Your task to perform on an android device: open device folders in google photos Image 0: 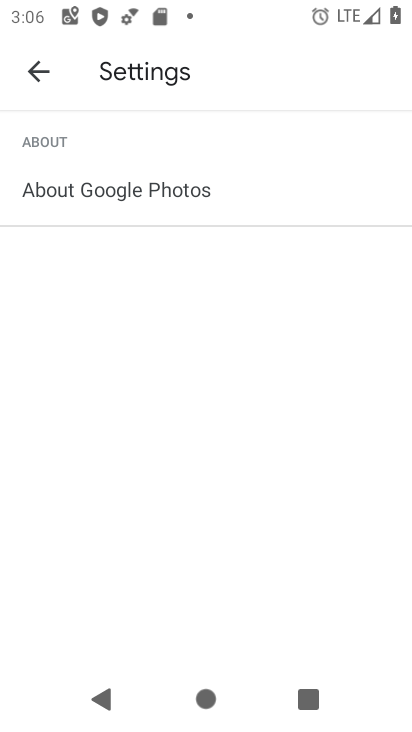
Step 0: press back button
Your task to perform on an android device: open device folders in google photos Image 1: 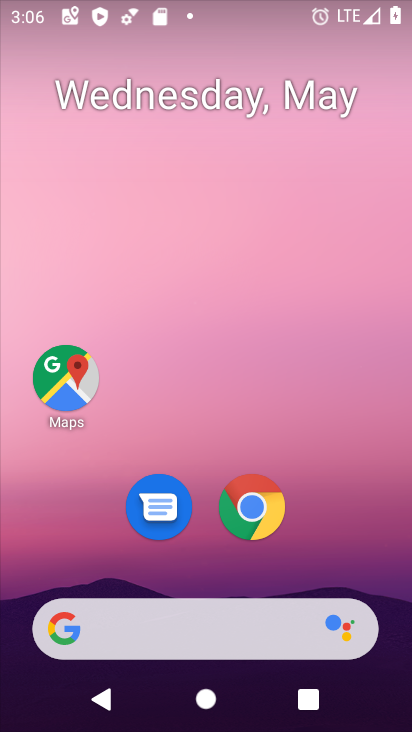
Step 1: drag from (348, 556) to (273, 157)
Your task to perform on an android device: open device folders in google photos Image 2: 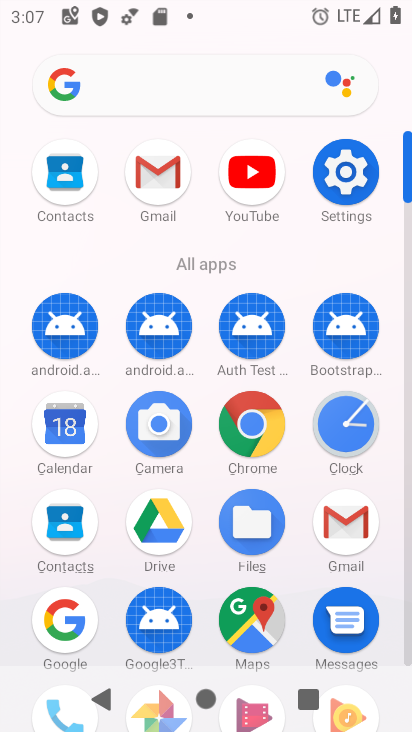
Step 2: drag from (215, 592) to (212, 272)
Your task to perform on an android device: open device folders in google photos Image 3: 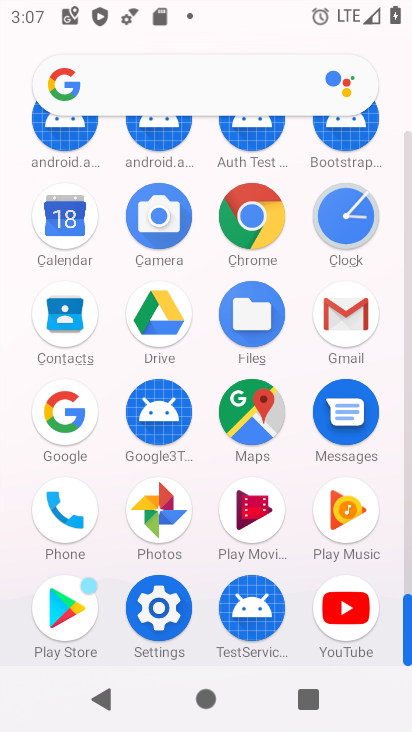
Step 3: click (158, 509)
Your task to perform on an android device: open device folders in google photos Image 4: 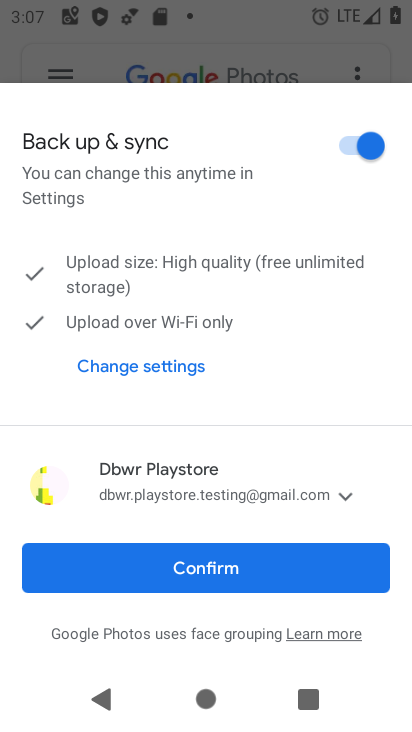
Step 4: click (206, 569)
Your task to perform on an android device: open device folders in google photos Image 5: 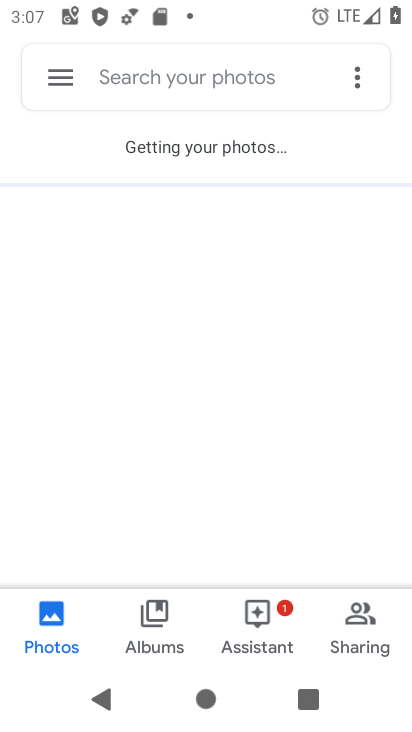
Step 5: click (56, 83)
Your task to perform on an android device: open device folders in google photos Image 6: 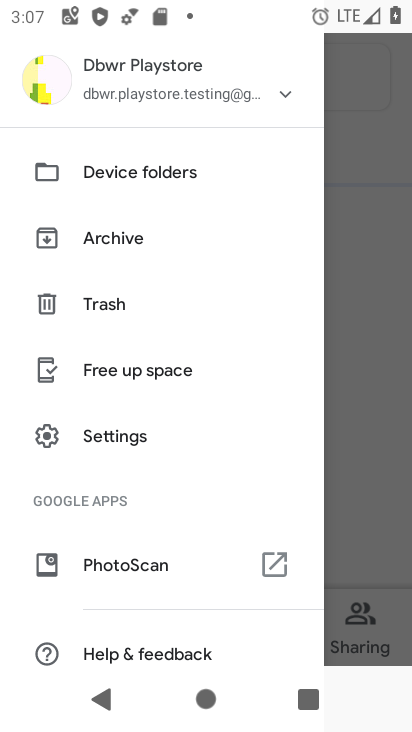
Step 6: click (143, 181)
Your task to perform on an android device: open device folders in google photos Image 7: 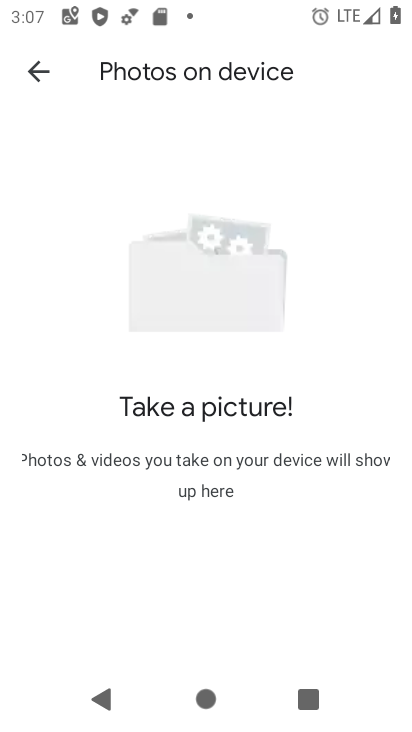
Step 7: task complete